Your task to perform on an android device: check data usage Image 0: 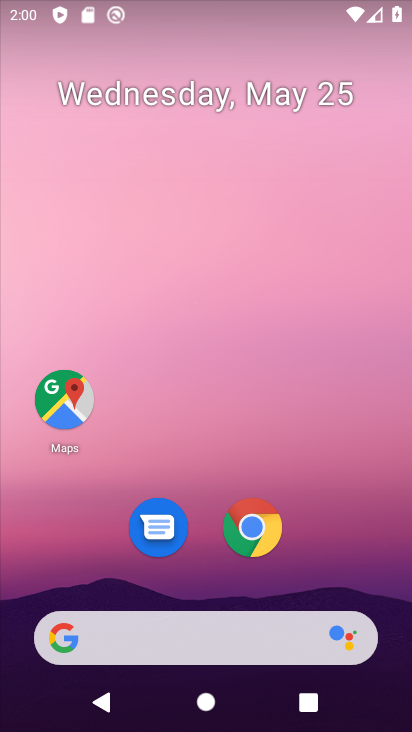
Step 0: drag from (221, 561) to (263, 23)
Your task to perform on an android device: check data usage Image 1: 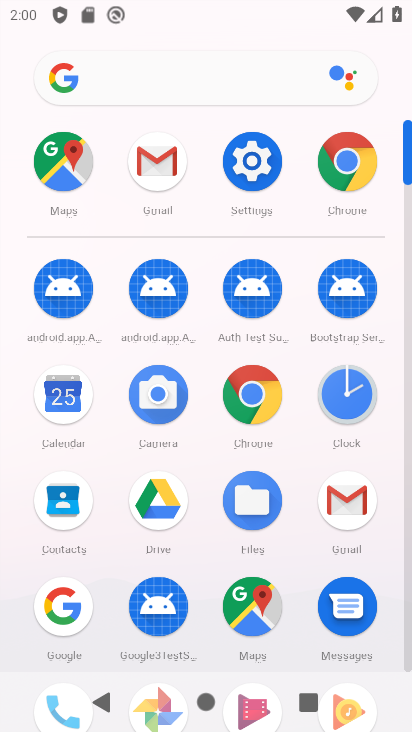
Step 1: click (244, 165)
Your task to perform on an android device: check data usage Image 2: 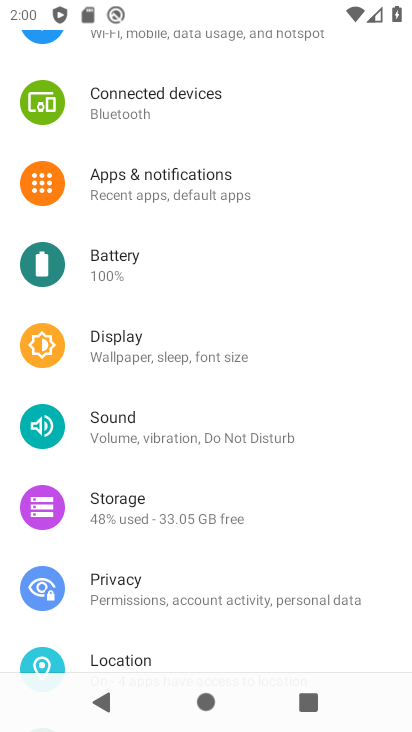
Step 2: drag from (206, 198) to (291, 723)
Your task to perform on an android device: check data usage Image 3: 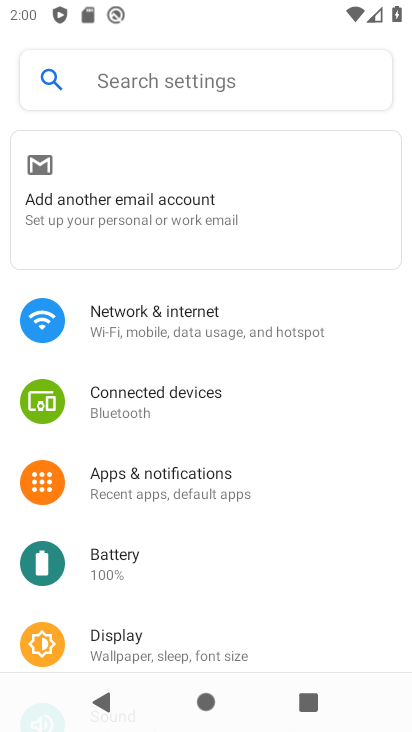
Step 3: click (185, 328)
Your task to perform on an android device: check data usage Image 4: 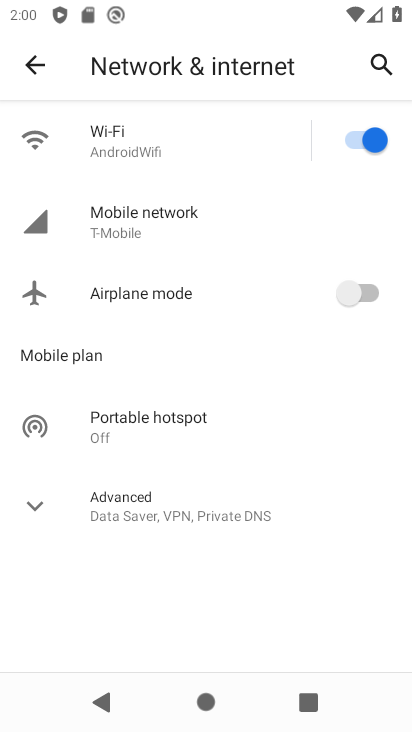
Step 4: click (227, 214)
Your task to perform on an android device: check data usage Image 5: 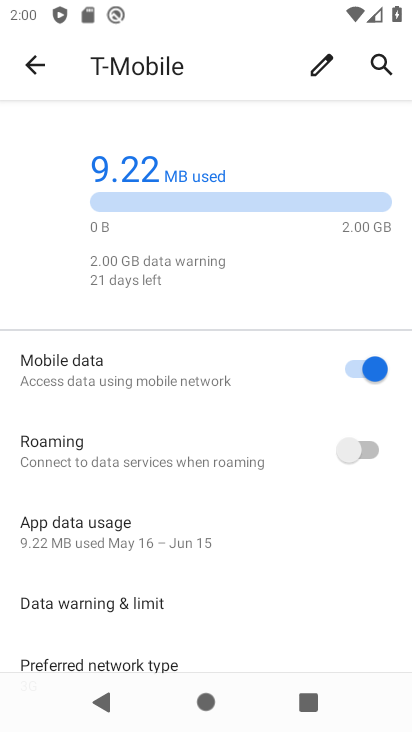
Step 5: task complete